Your task to perform on an android device: manage bookmarks in the chrome app Image 0: 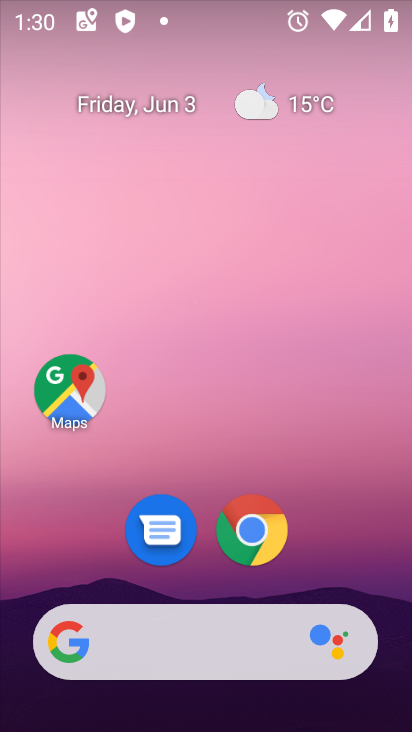
Step 0: click (278, 517)
Your task to perform on an android device: manage bookmarks in the chrome app Image 1: 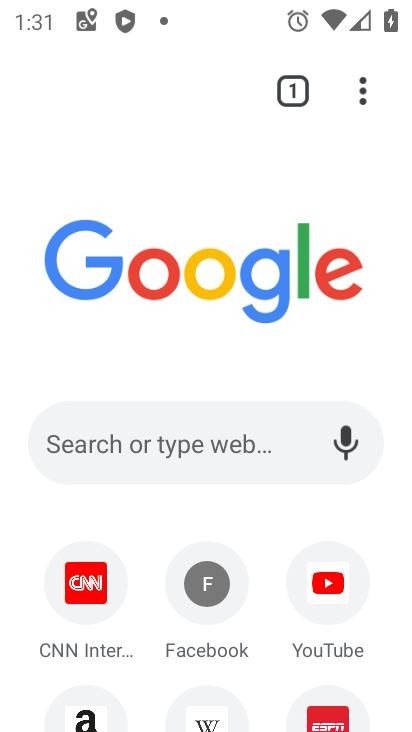
Step 1: drag from (364, 84) to (190, 327)
Your task to perform on an android device: manage bookmarks in the chrome app Image 2: 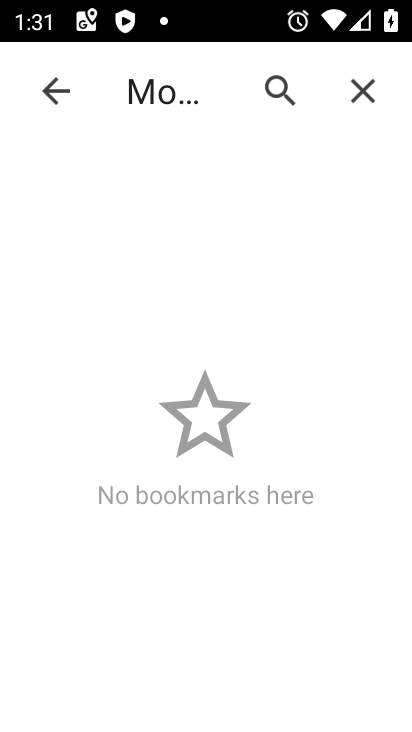
Step 2: click (277, 92)
Your task to perform on an android device: manage bookmarks in the chrome app Image 3: 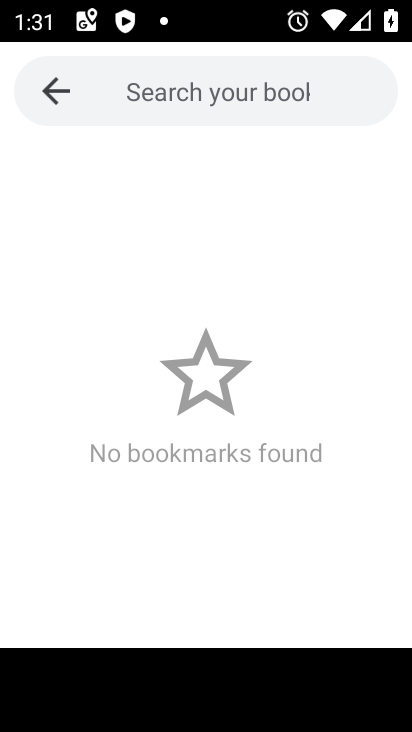
Step 3: task complete